Your task to perform on an android device: open chrome and create a bookmark for the current page Image 0: 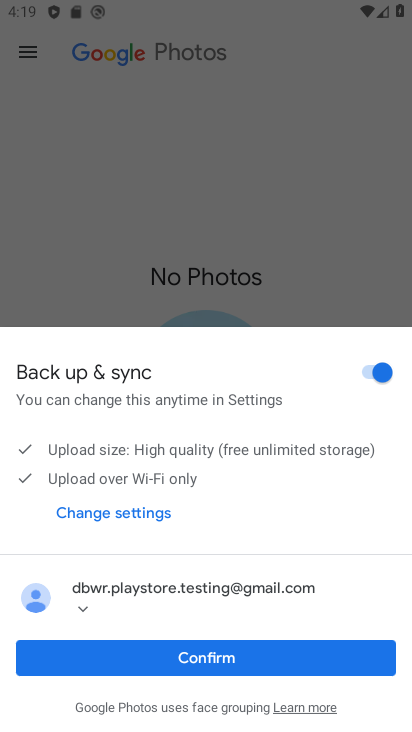
Step 0: press back button
Your task to perform on an android device: open chrome and create a bookmark for the current page Image 1: 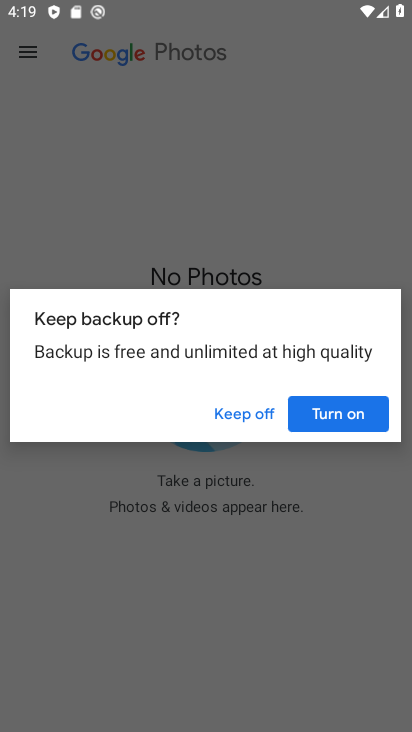
Step 1: press home button
Your task to perform on an android device: open chrome and create a bookmark for the current page Image 2: 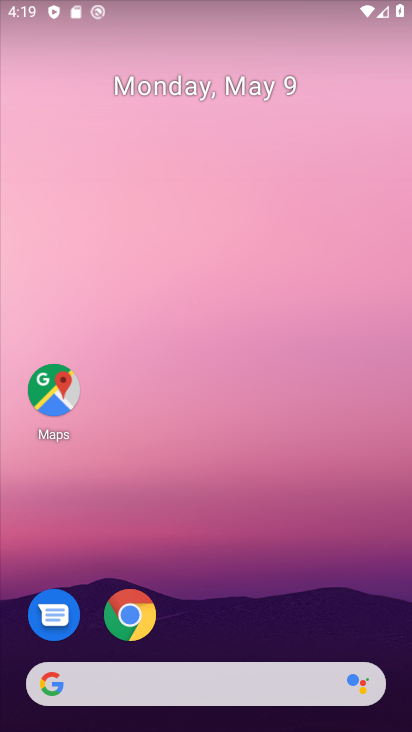
Step 2: click (152, 616)
Your task to perform on an android device: open chrome and create a bookmark for the current page Image 3: 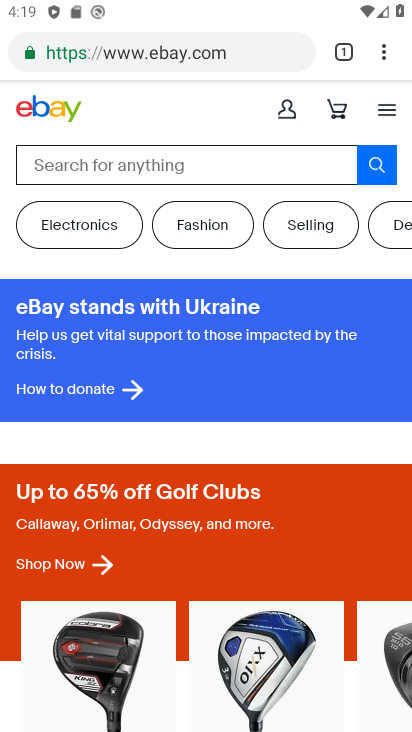
Step 3: task complete